Your task to perform on an android device: Do I have any events tomorrow? Image 0: 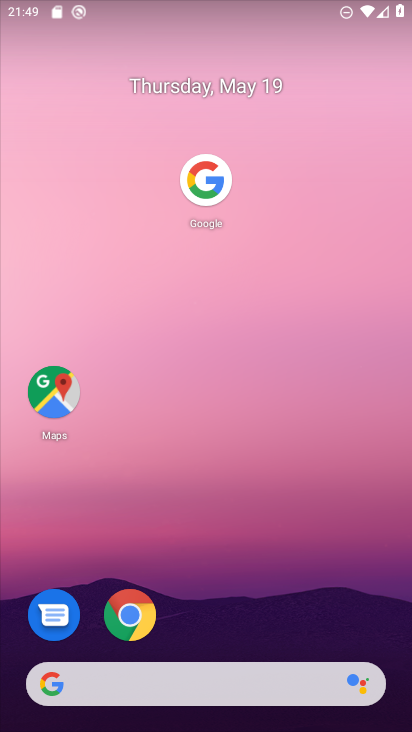
Step 0: drag from (234, 574) to (229, 63)
Your task to perform on an android device: Do I have any events tomorrow? Image 1: 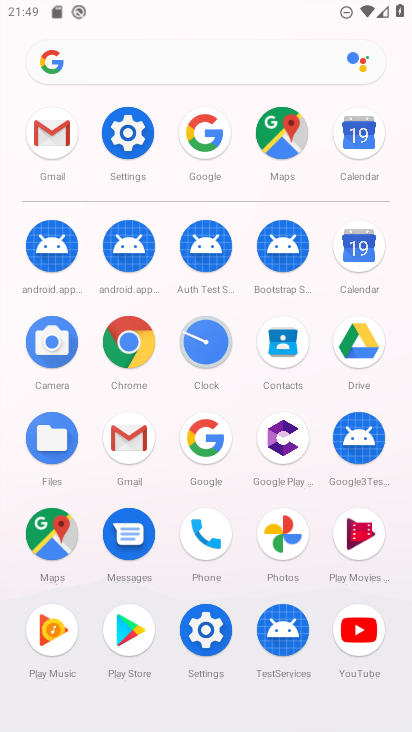
Step 1: click (366, 245)
Your task to perform on an android device: Do I have any events tomorrow? Image 2: 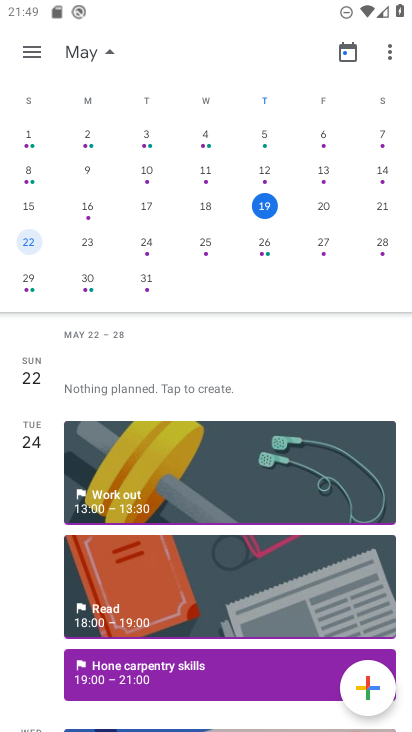
Step 2: click (321, 203)
Your task to perform on an android device: Do I have any events tomorrow? Image 3: 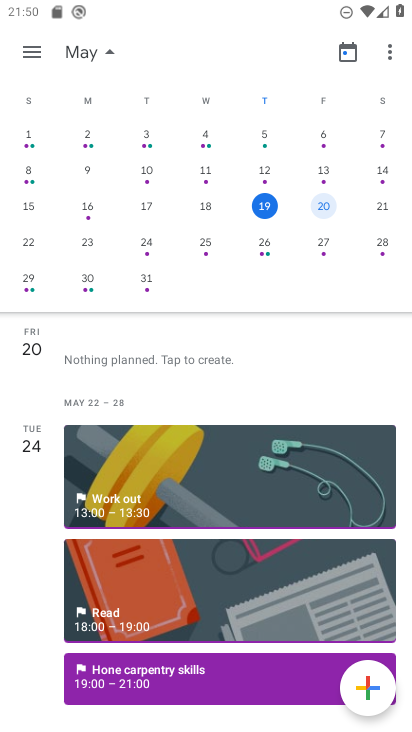
Step 3: task complete